Your task to perform on an android device: When is my next meeting? Image 0: 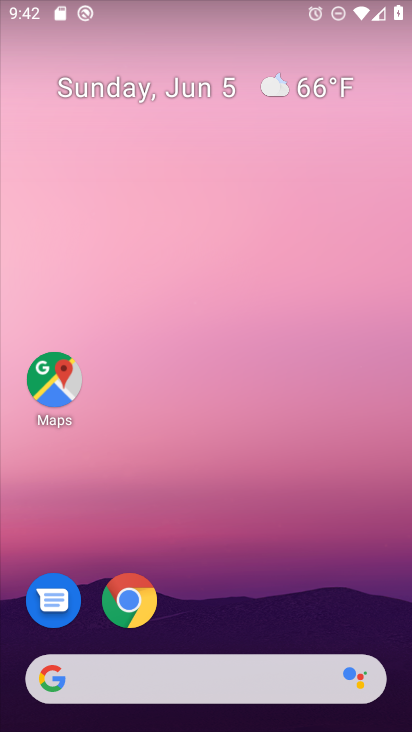
Step 0: drag from (364, 509) to (289, 69)
Your task to perform on an android device: When is my next meeting? Image 1: 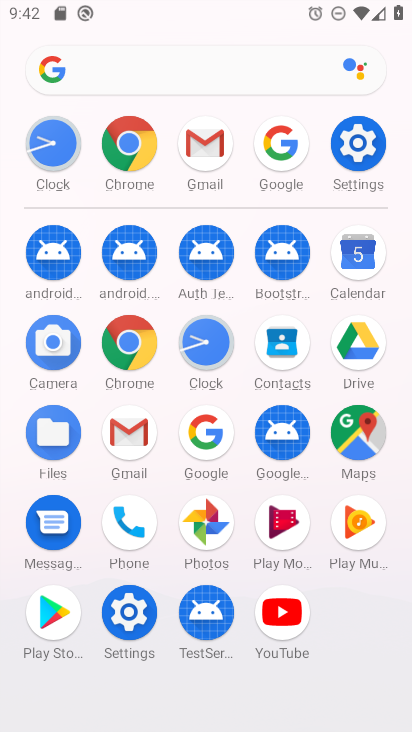
Step 1: click (366, 244)
Your task to perform on an android device: When is my next meeting? Image 2: 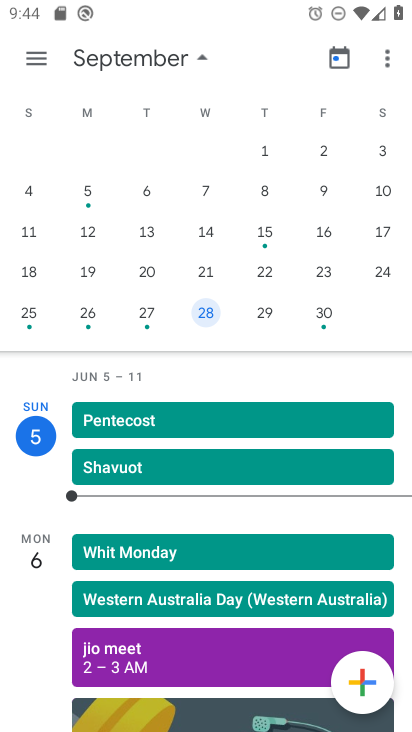
Step 2: task complete